Your task to perform on an android device: set an alarm Image 0: 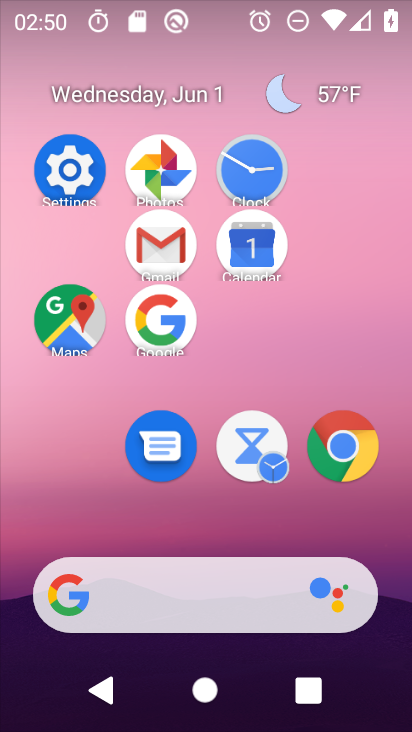
Step 0: click (268, 175)
Your task to perform on an android device: set an alarm Image 1: 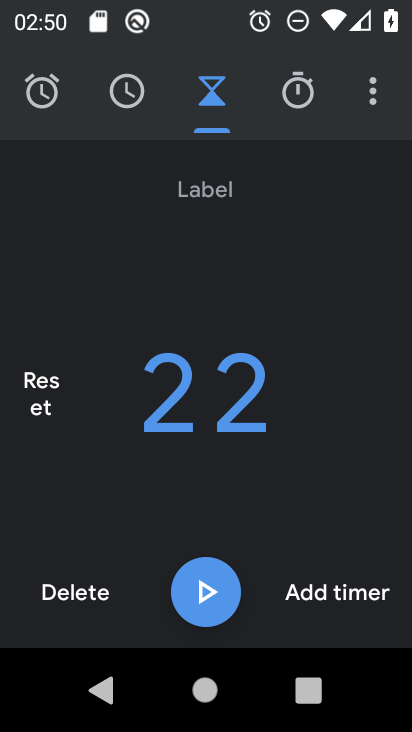
Step 1: click (30, 77)
Your task to perform on an android device: set an alarm Image 2: 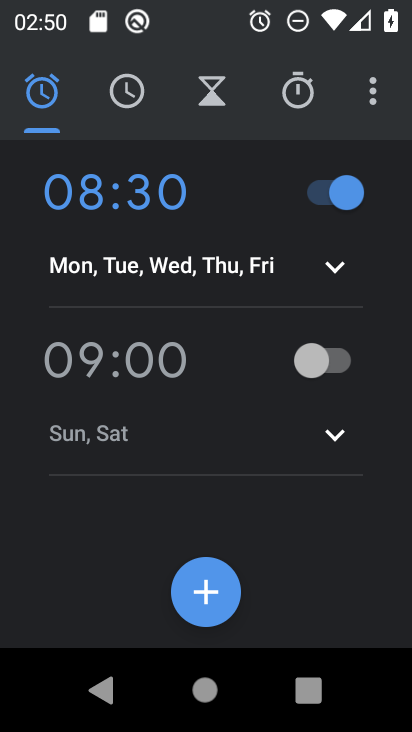
Step 2: click (333, 358)
Your task to perform on an android device: set an alarm Image 3: 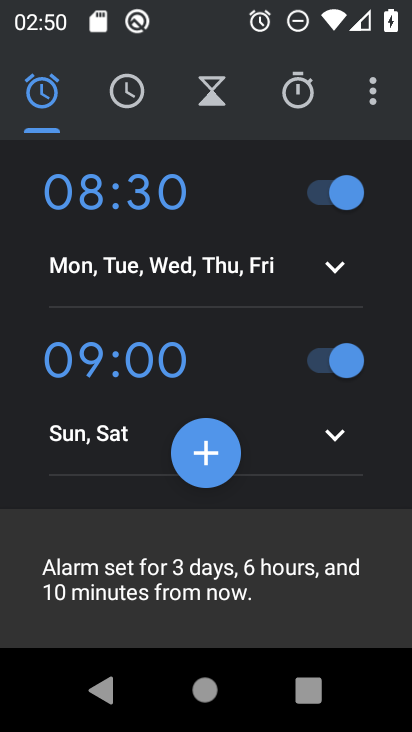
Step 3: task complete